Your task to perform on an android device: visit the assistant section in the google photos Image 0: 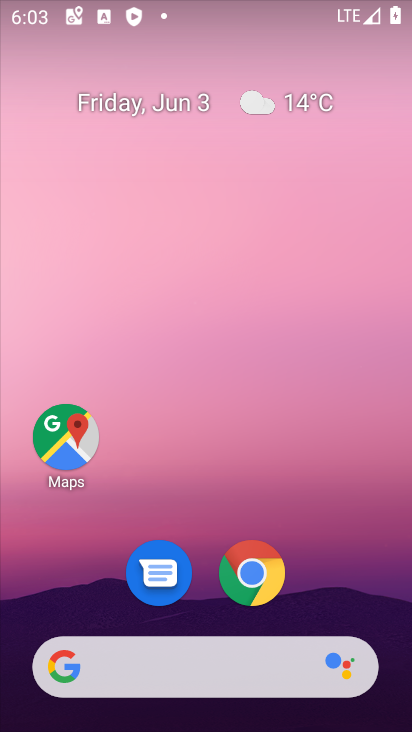
Step 0: drag from (325, 670) to (266, 9)
Your task to perform on an android device: visit the assistant section in the google photos Image 1: 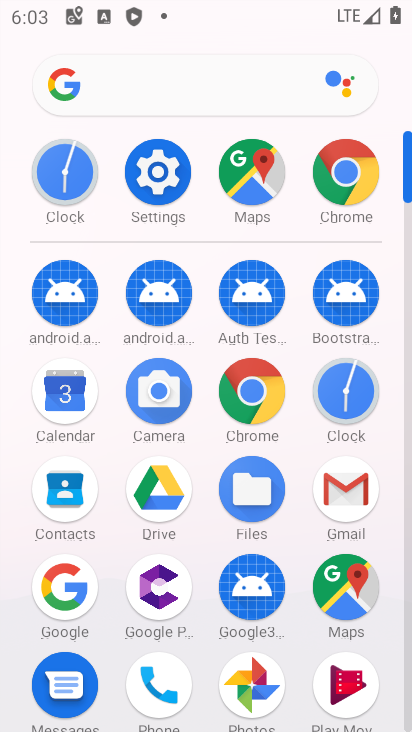
Step 1: click (236, 684)
Your task to perform on an android device: visit the assistant section in the google photos Image 2: 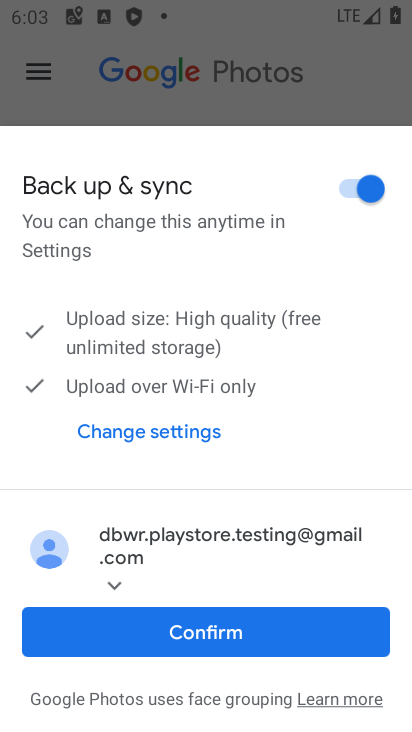
Step 2: click (249, 623)
Your task to perform on an android device: visit the assistant section in the google photos Image 3: 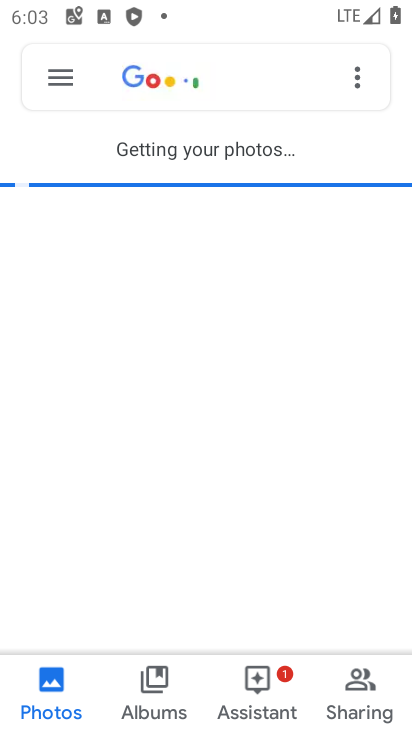
Step 3: click (259, 681)
Your task to perform on an android device: visit the assistant section in the google photos Image 4: 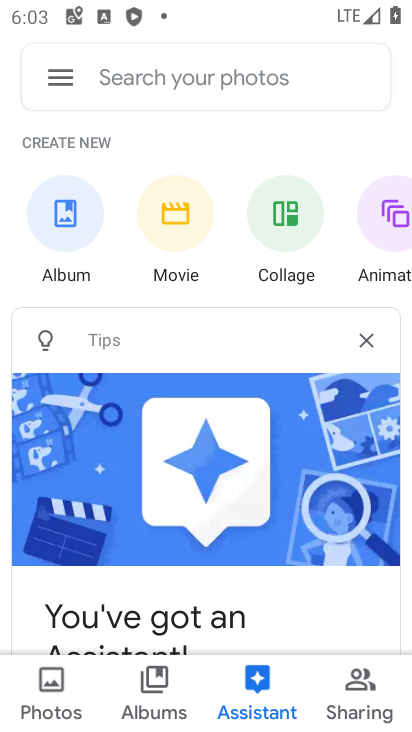
Step 4: task complete